Your task to perform on an android device: What's the weather today? Image 0: 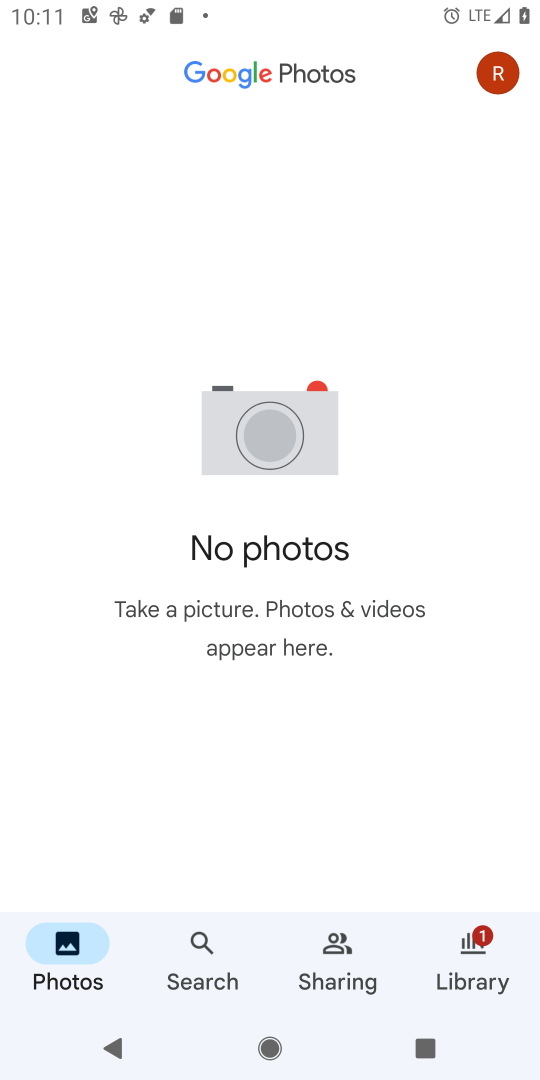
Step 0: press home button
Your task to perform on an android device: What's the weather today? Image 1: 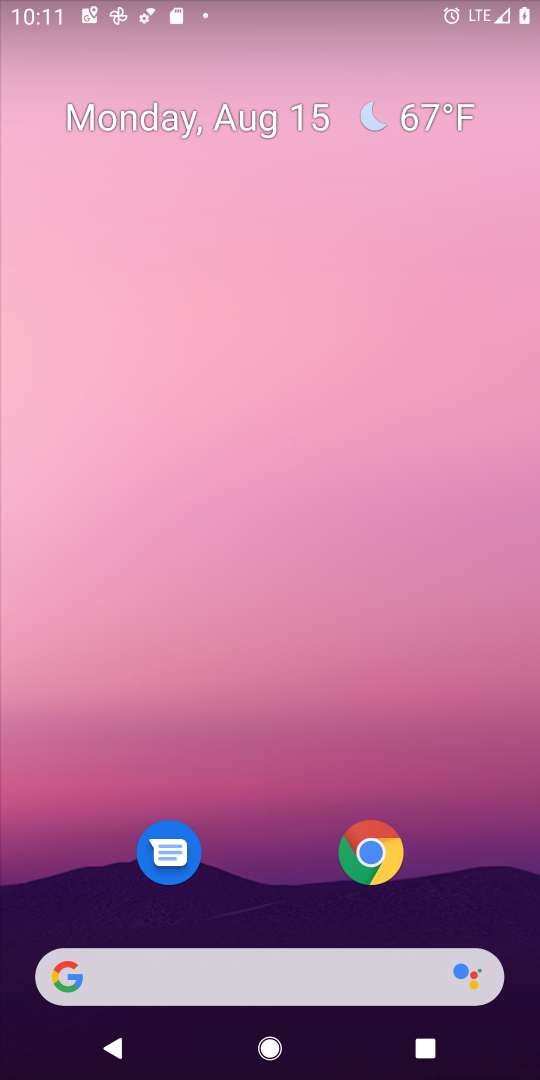
Step 1: drag from (251, 978) to (379, 33)
Your task to perform on an android device: What's the weather today? Image 2: 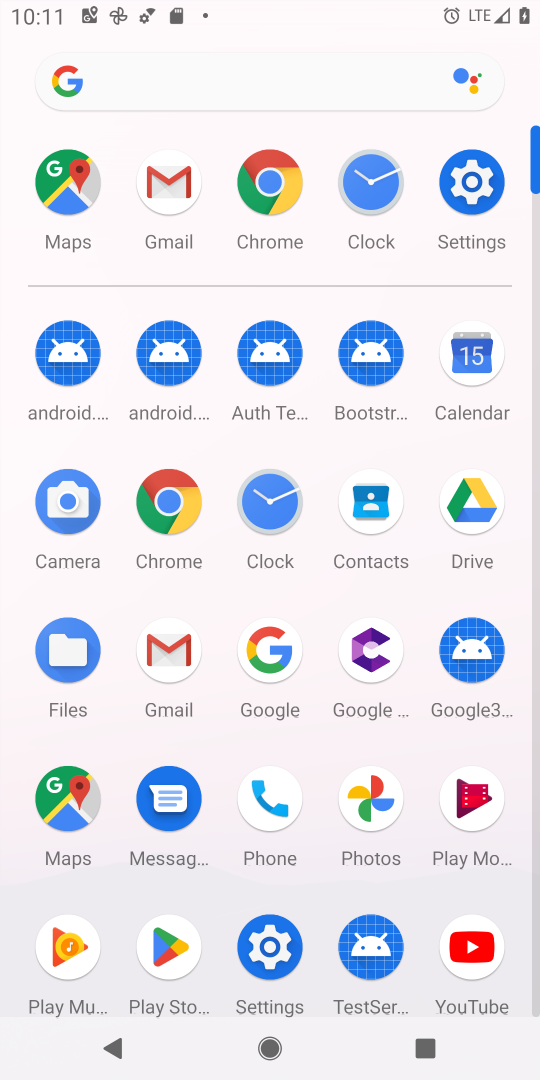
Step 2: click (267, 646)
Your task to perform on an android device: What's the weather today? Image 3: 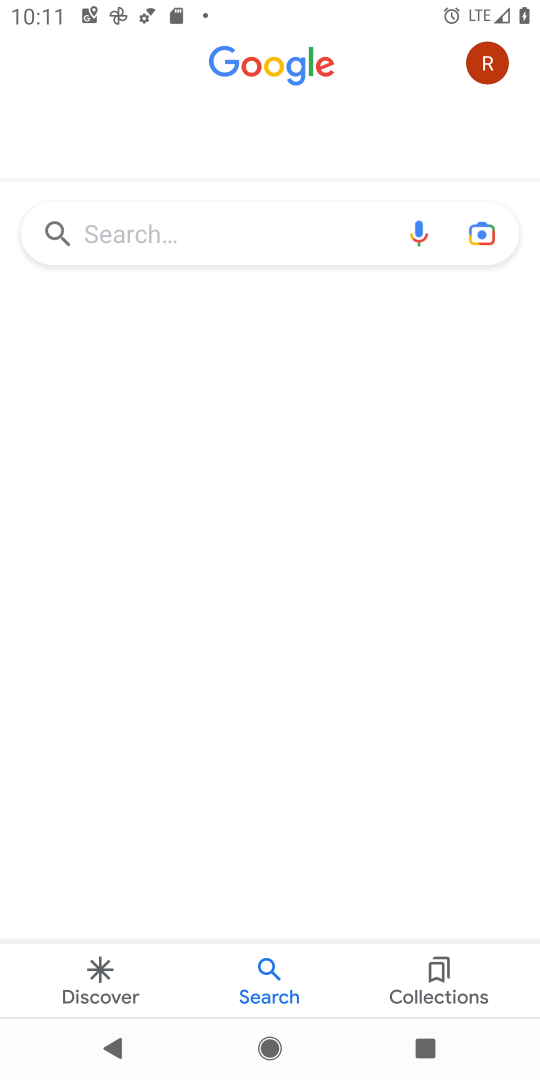
Step 3: click (215, 243)
Your task to perform on an android device: What's the weather today? Image 4: 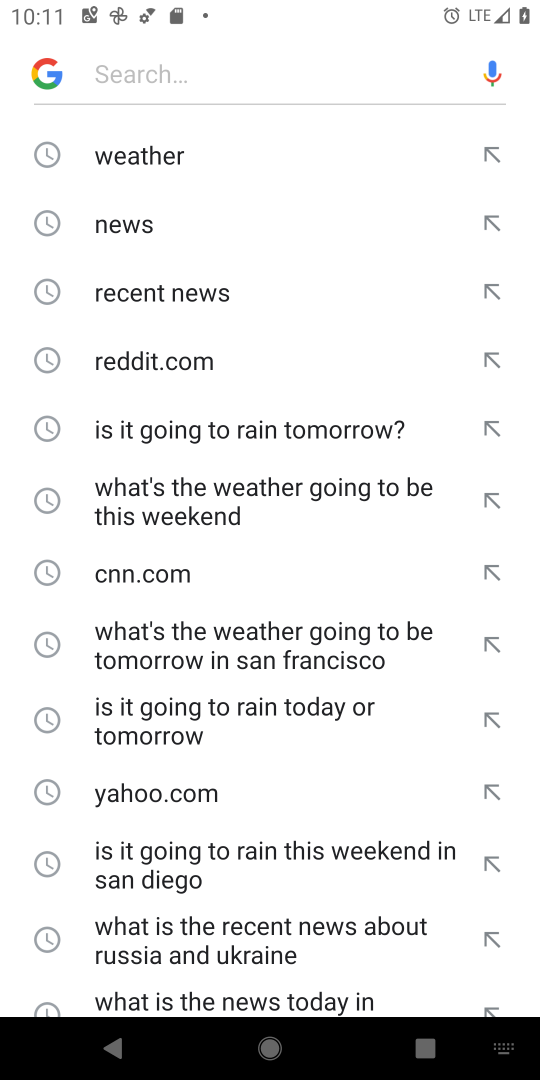
Step 4: type "What;s the weather today?"
Your task to perform on an android device: What's the weather today? Image 5: 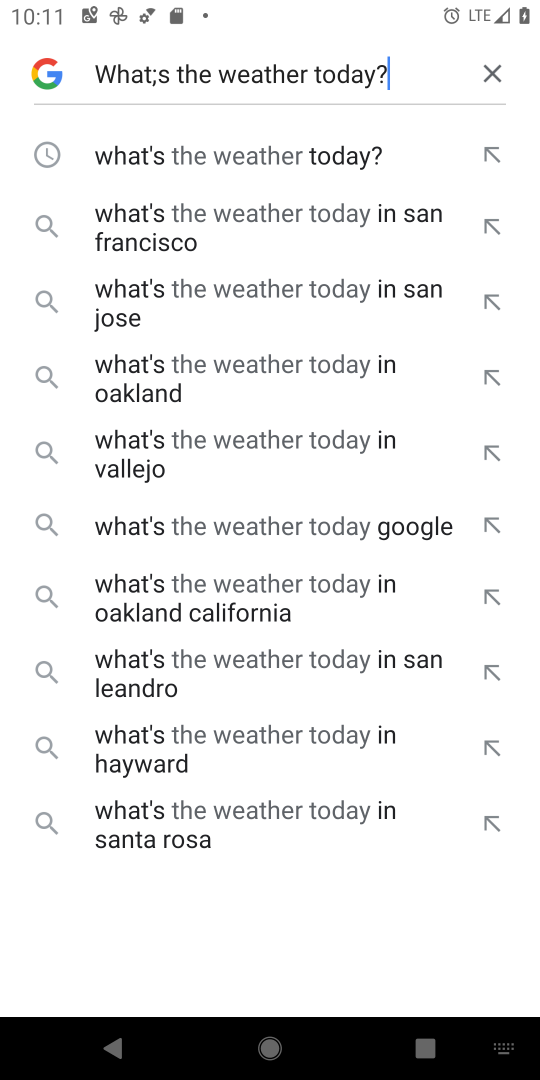
Step 5: click (278, 222)
Your task to perform on an android device: What's the weather today? Image 6: 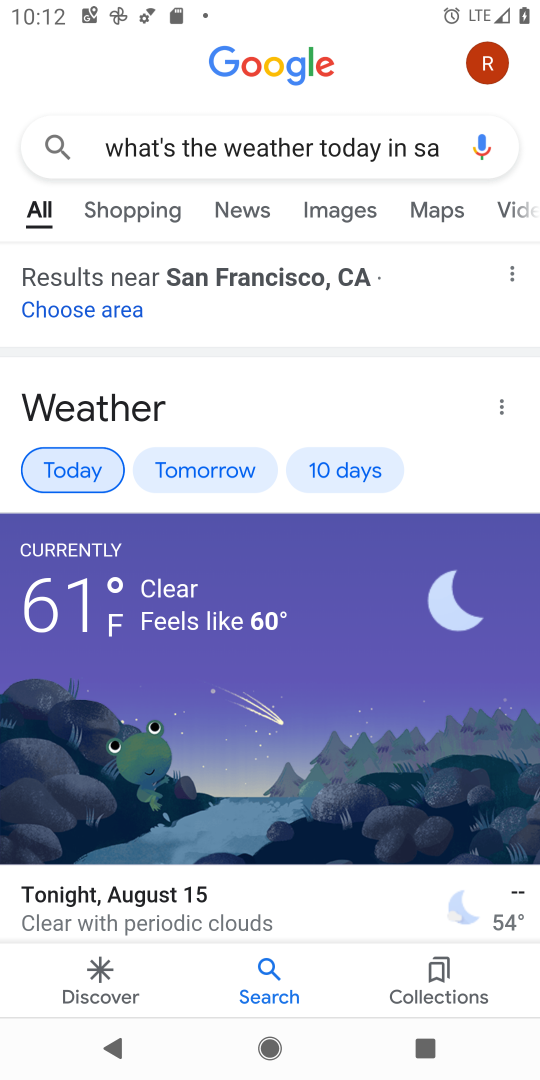
Step 6: task complete